Your task to perform on an android device: Open Wikipedia Image 0: 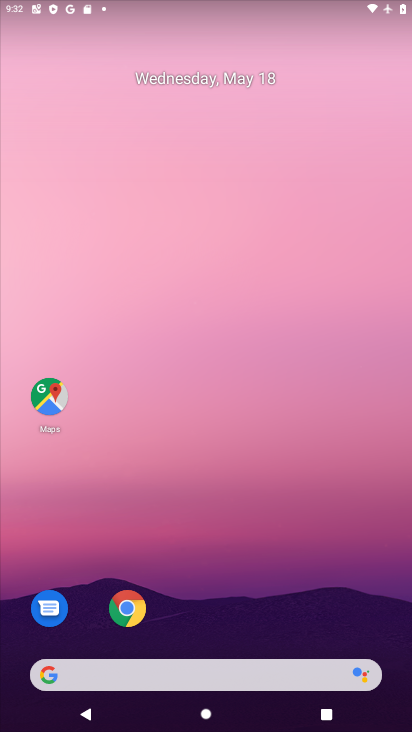
Step 0: click (146, 592)
Your task to perform on an android device: Open Wikipedia Image 1: 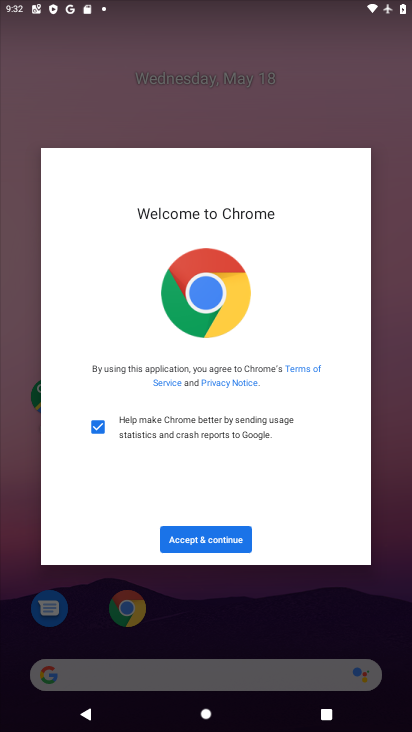
Step 1: click (223, 542)
Your task to perform on an android device: Open Wikipedia Image 2: 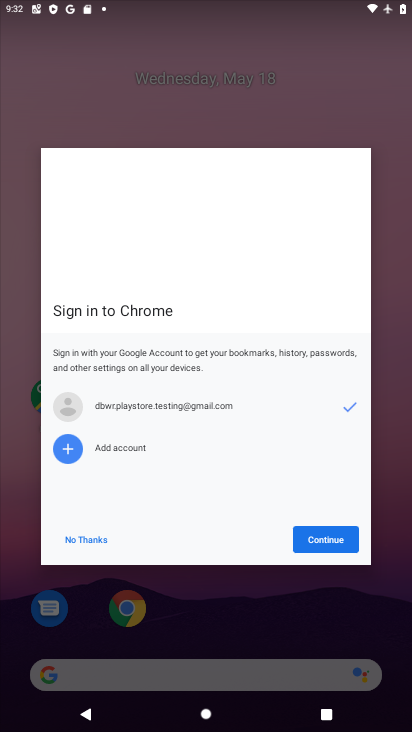
Step 2: click (302, 544)
Your task to perform on an android device: Open Wikipedia Image 3: 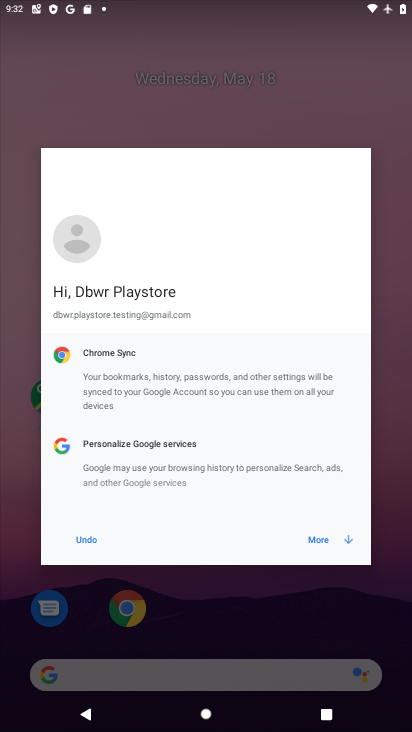
Step 3: click (302, 544)
Your task to perform on an android device: Open Wikipedia Image 4: 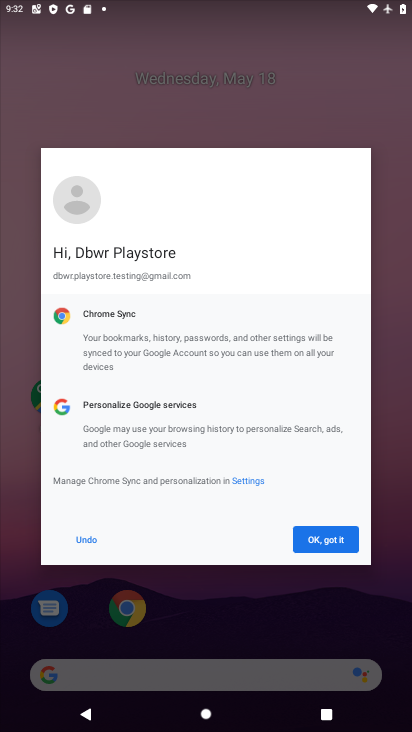
Step 4: click (302, 544)
Your task to perform on an android device: Open Wikipedia Image 5: 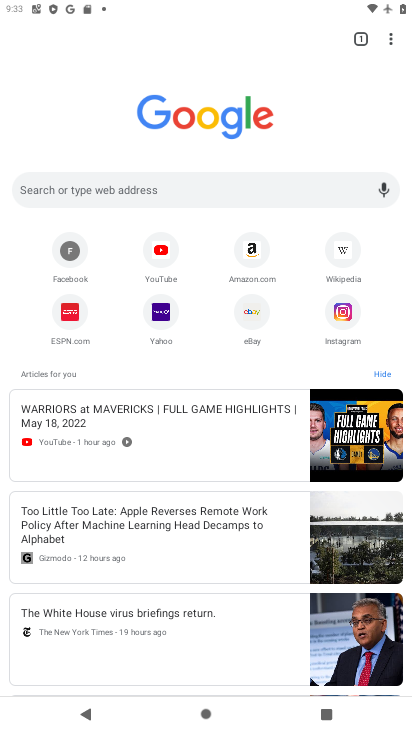
Step 5: click (318, 254)
Your task to perform on an android device: Open Wikipedia Image 6: 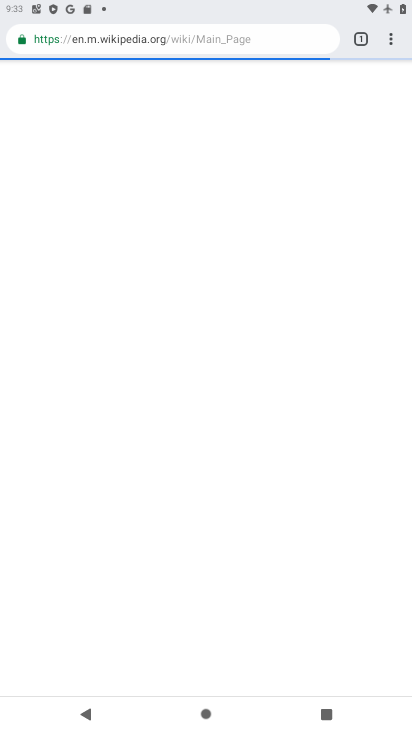
Step 6: task complete